Your task to perform on an android device: toggle pop-ups in chrome Image 0: 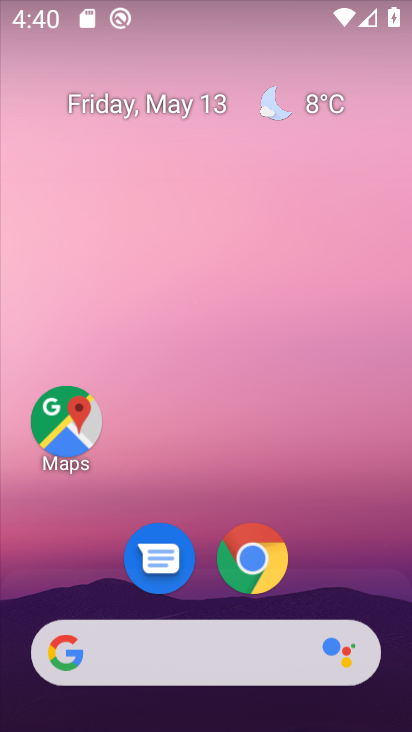
Step 0: click (256, 576)
Your task to perform on an android device: toggle pop-ups in chrome Image 1: 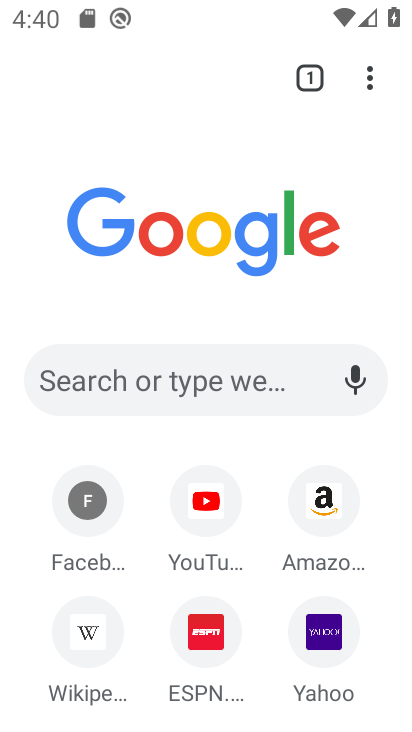
Step 1: drag from (377, 85) to (229, 617)
Your task to perform on an android device: toggle pop-ups in chrome Image 2: 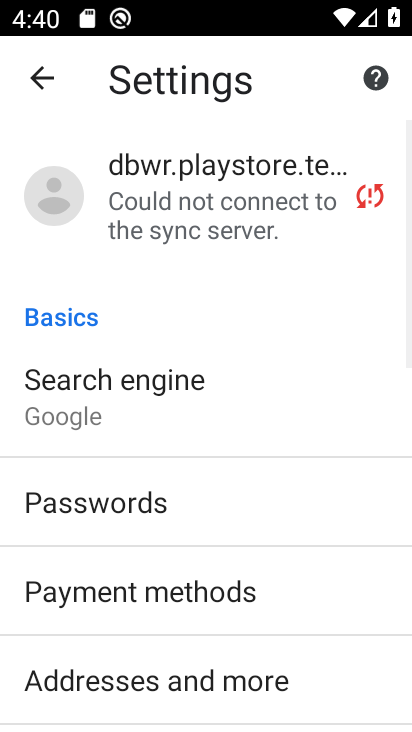
Step 2: drag from (140, 687) to (225, 276)
Your task to perform on an android device: toggle pop-ups in chrome Image 3: 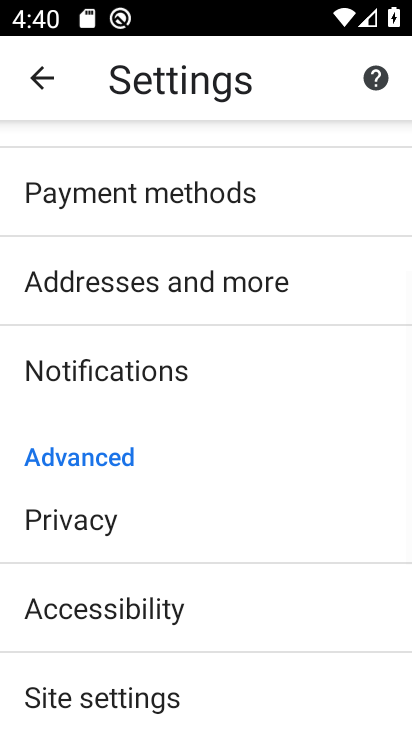
Step 3: drag from (147, 695) to (187, 490)
Your task to perform on an android device: toggle pop-ups in chrome Image 4: 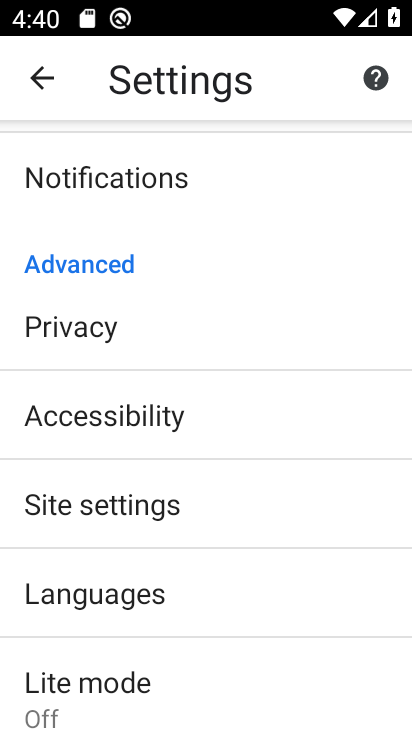
Step 4: click (167, 523)
Your task to perform on an android device: toggle pop-ups in chrome Image 5: 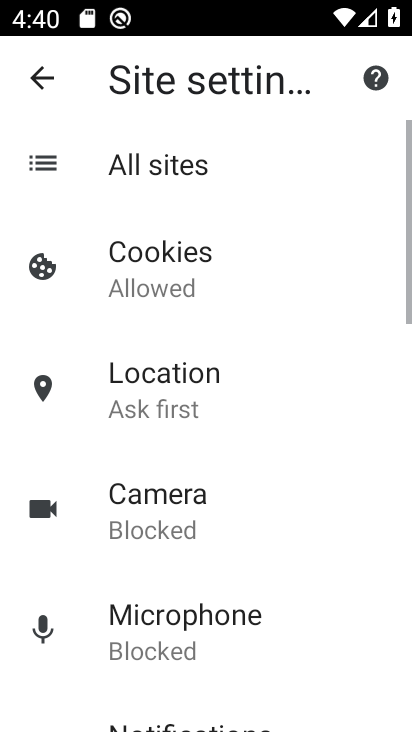
Step 5: drag from (173, 612) to (272, 252)
Your task to perform on an android device: toggle pop-ups in chrome Image 6: 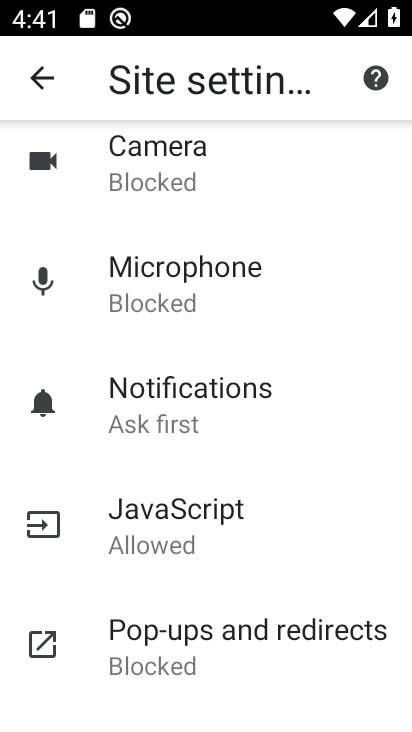
Step 6: click (246, 638)
Your task to perform on an android device: toggle pop-ups in chrome Image 7: 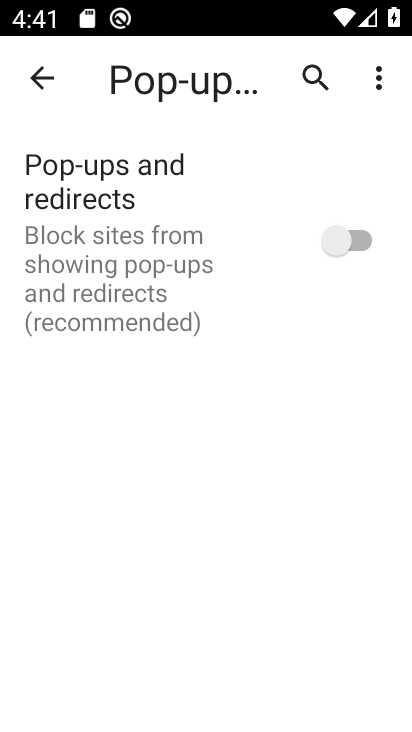
Step 7: click (376, 231)
Your task to perform on an android device: toggle pop-ups in chrome Image 8: 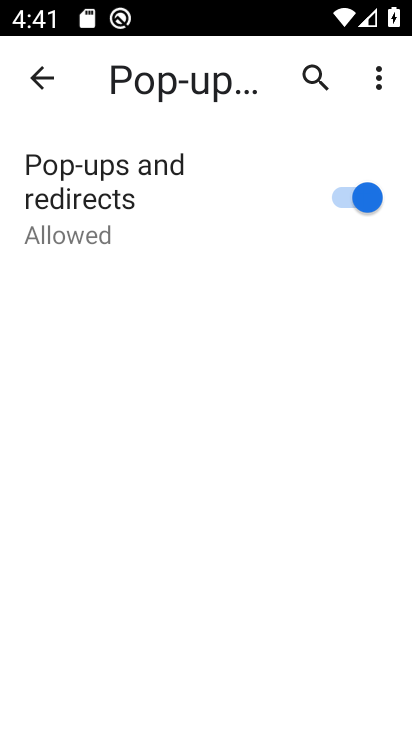
Step 8: task complete